Your task to perform on an android device: all mails in gmail Image 0: 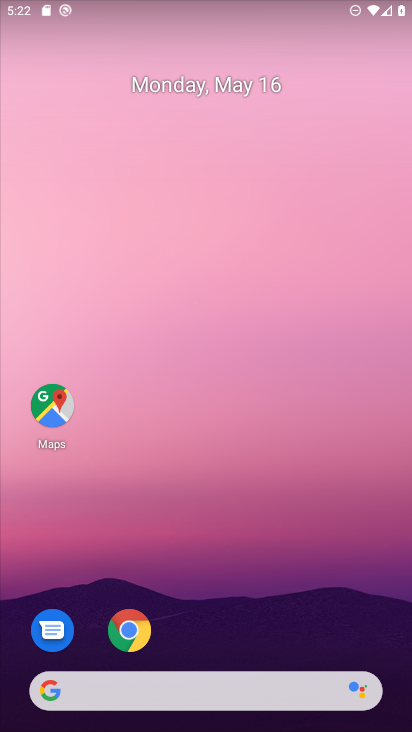
Step 0: press home button
Your task to perform on an android device: all mails in gmail Image 1: 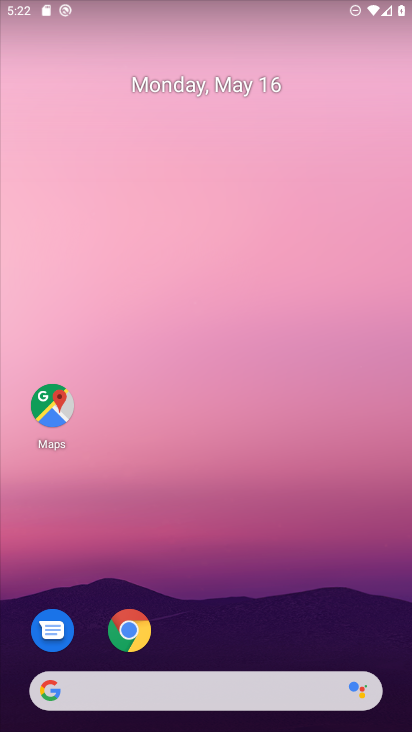
Step 1: drag from (387, 631) to (280, 157)
Your task to perform on an android device: all mails in gmail Image 2: 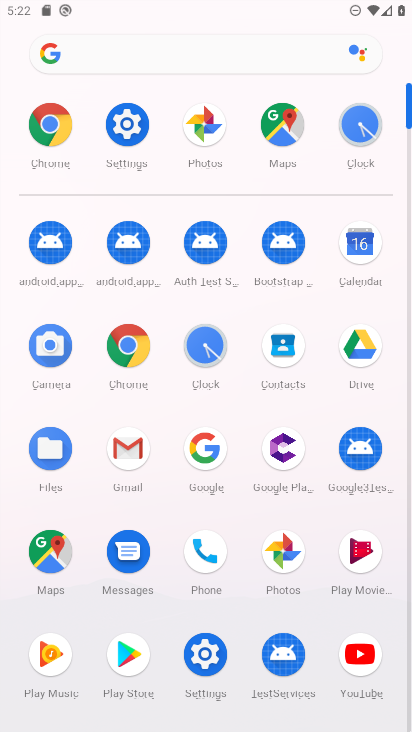
Step 2: click (134, 449)
Your task to perform on an android device: all mails in gmail Image 3: 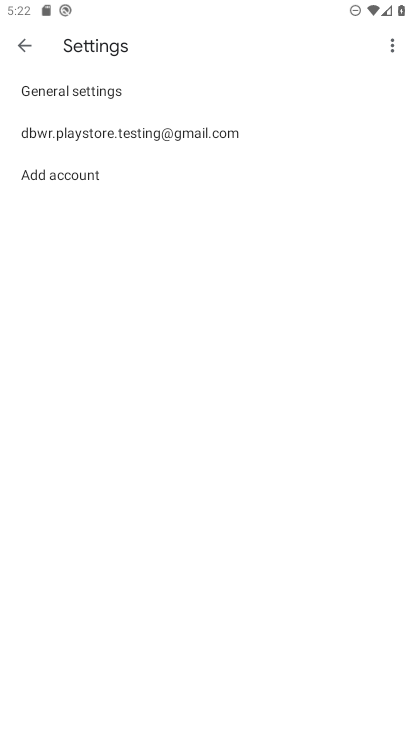
Step 3: click (26, 45)
Your task to perform on an android device: all mails in gmail Image 4: 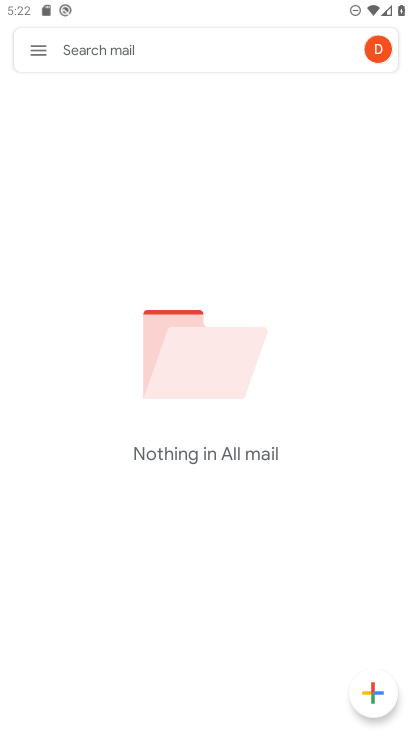
Step 4: click (26, 45)
Your task to perform on an android device: all mails in gmail Image 5: 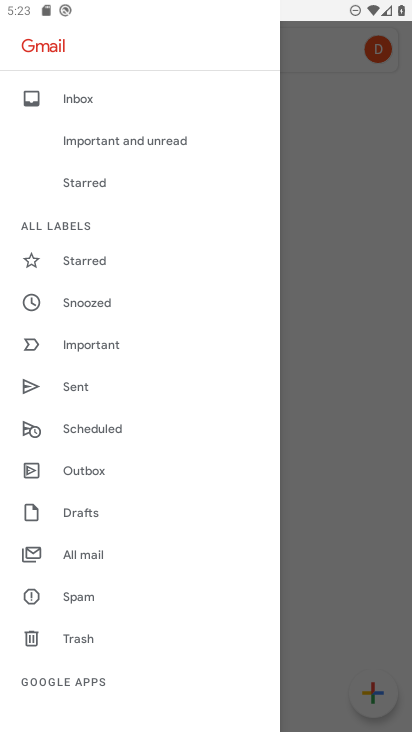
Step 5: click (102, 551)
Your task to perform on an android device: all mails in gmail Image 6: 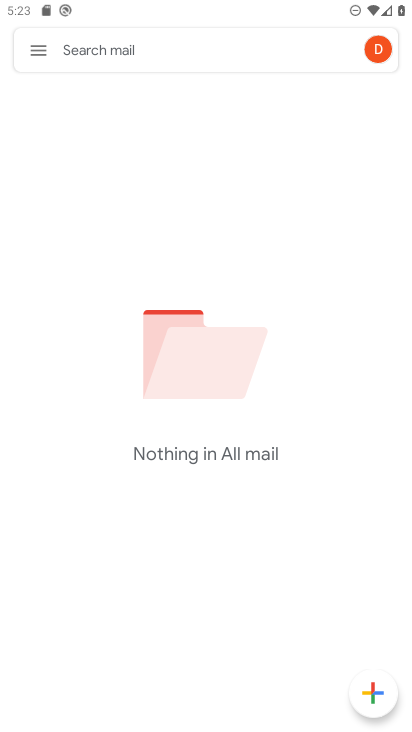
Step 6: task complete